Your task to perform on an android device: Go to sound settings Image 0: 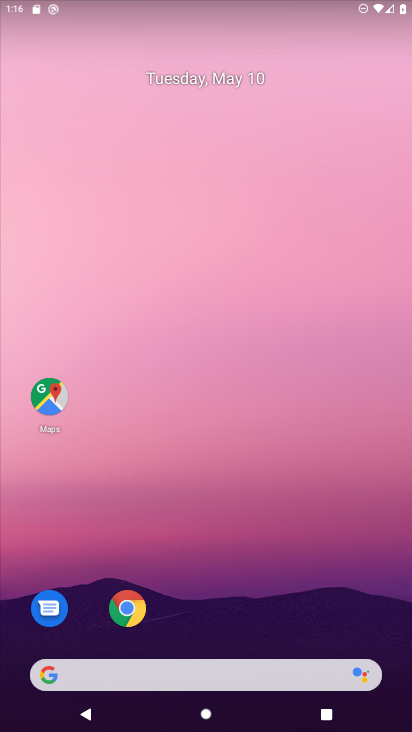
Step 0: drag from (302, 603) to (342, 226)
Your task to perform on an android device: Go to sound settings Image 1: 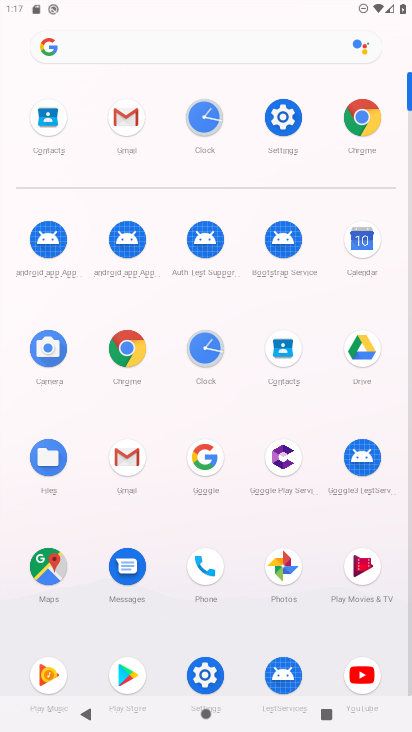
Step 1: click (292, 132)
Your task to perform on an android device: Go to sound settings Image 2: 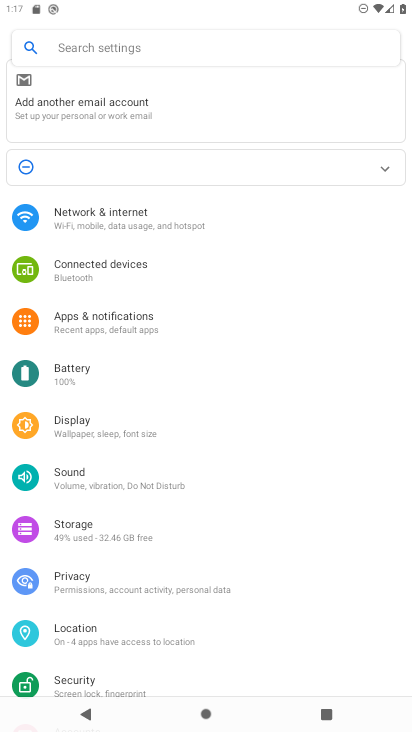
Step 2: click (79, 464)
Your task to perform on an android device: Go to sound settings Image 3: 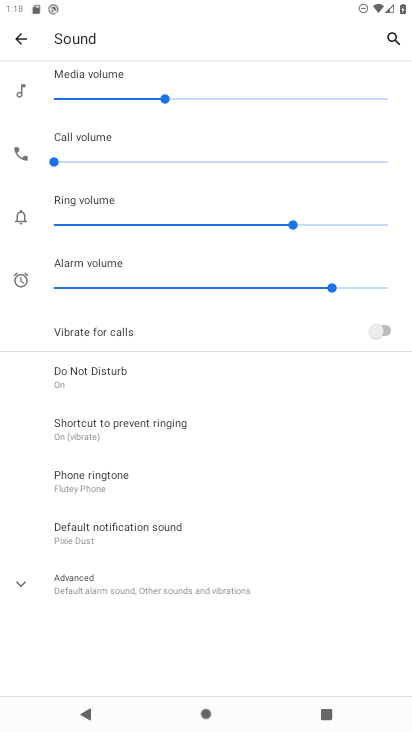
Step 3: task complete